Your task to perform on an android device: Search for sushi restaurants on Maps Image 0: 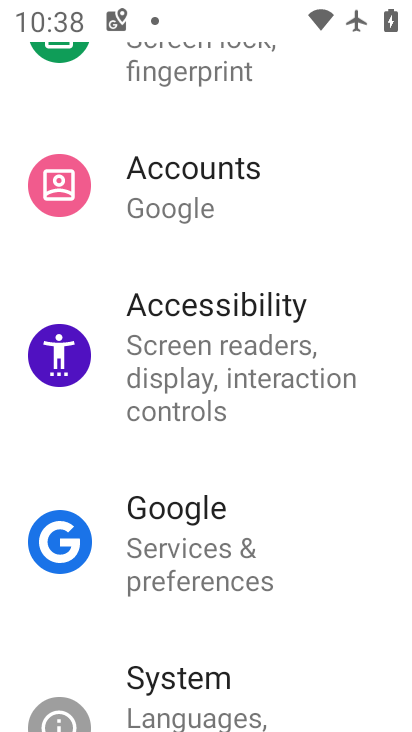
Step 0: press home button
Your task to perform on an android device: Search for sushi restaurants on Maps Image 1: 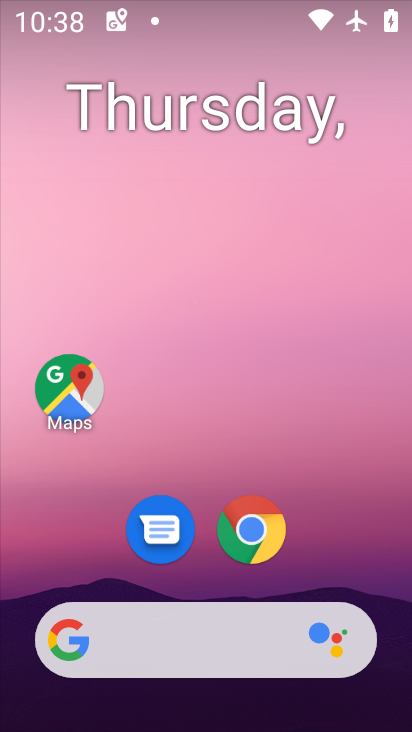
Step 1: click (61, 393)
Your task to perform on an android device: Search for sushi restaurants on Maps Image 2: 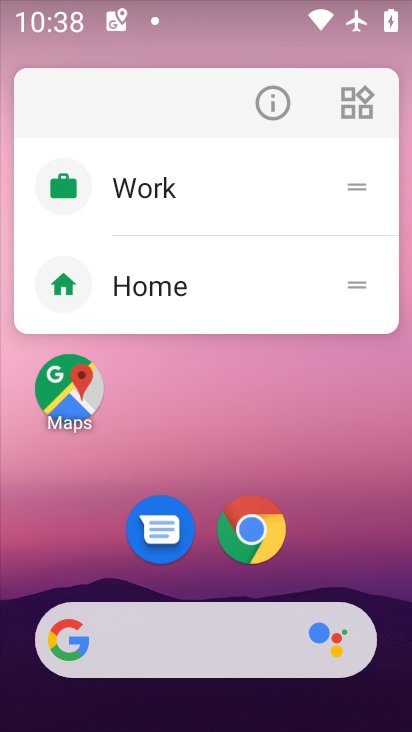
Step 2: click (57, 393)
Your task to perform on an android device: Search for sushi restaurants on Maps Image 3: 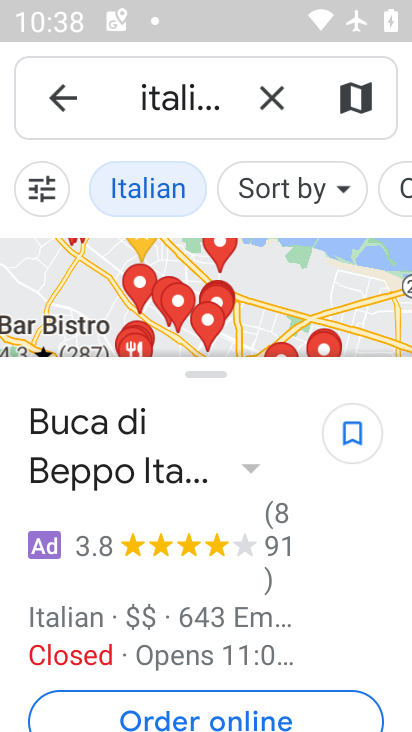
Step 3: click (272, 98)
Your task to perform on an android device: Search for sushi restaurants on Maps Image 4: 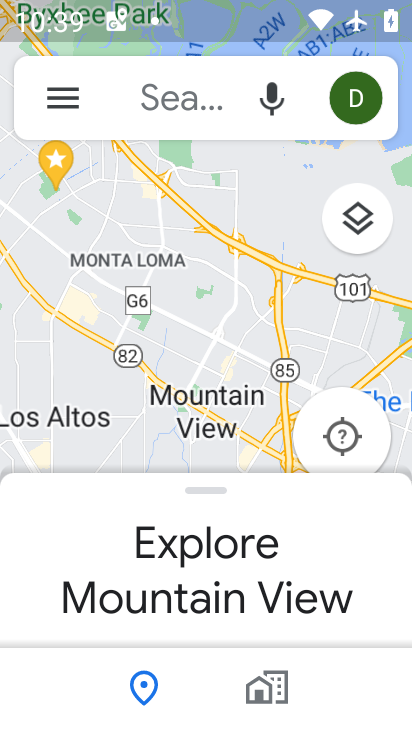
Step 4: click (157, 114)
Your task to perform on an android device: Search for sushi restaurants on Maps Image 5: 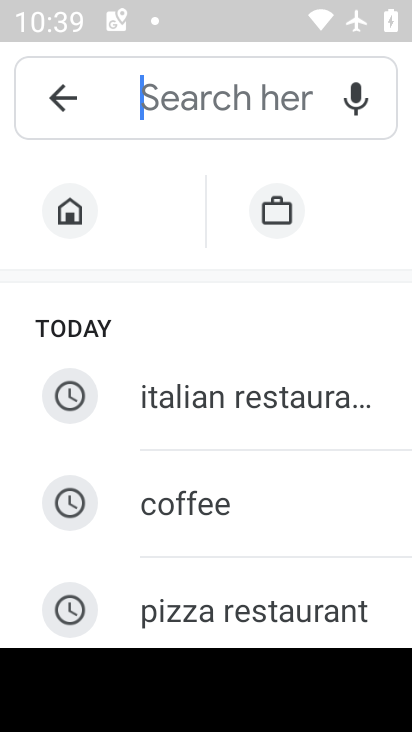
Step 5: type "sushi restaurants"
Your task to perform on an android device: Search for sushi restaurants on Maps Image 6: 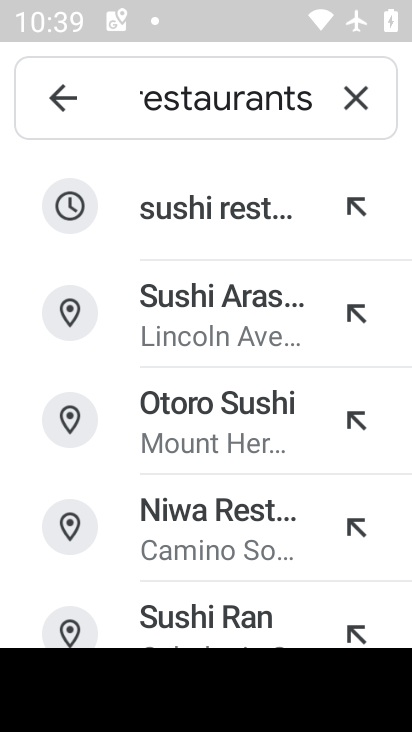
Step 6: click (221, 208)
Your task to perform on an android device: Search for sushi restaurants on Maps Image 7: 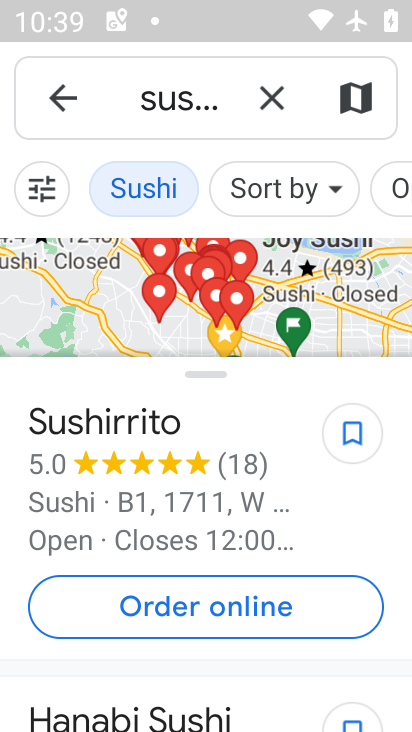
Step 7: task complete